Your task to perform on an android device: Open the stopwatch Image 0: 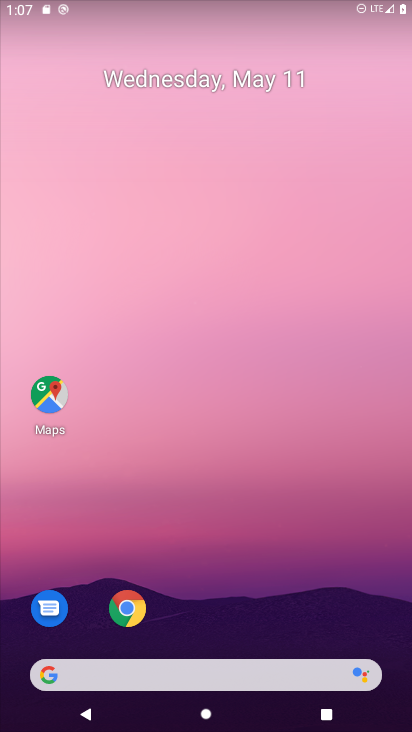
Step 0: drag from (257, 553) to (260, 59)
Your task to perform on an android device: Open the stopwatch Image 1: 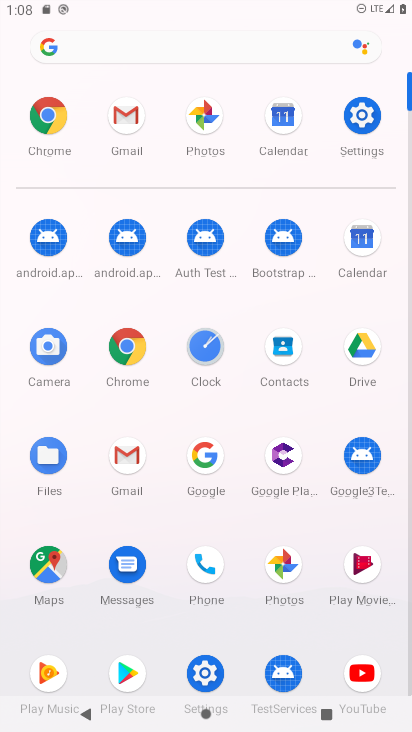
Step 1: click (214, 350)
Your task to perform on an android device: Open the stopwatch Image 2: 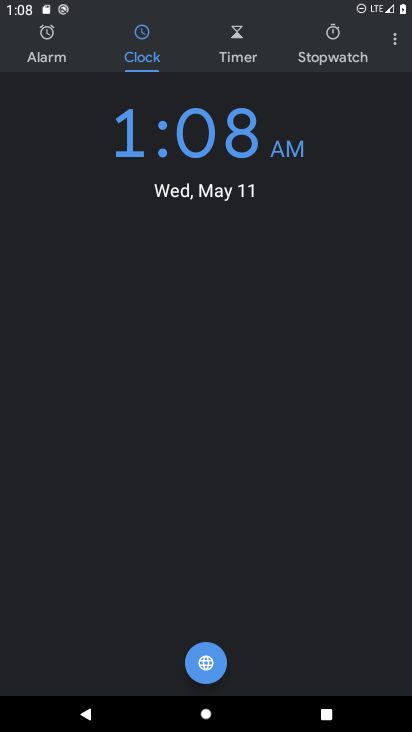
Step 2: click (337, 41)
Your task to perform on an android device: Open the stopwatch Image 3: 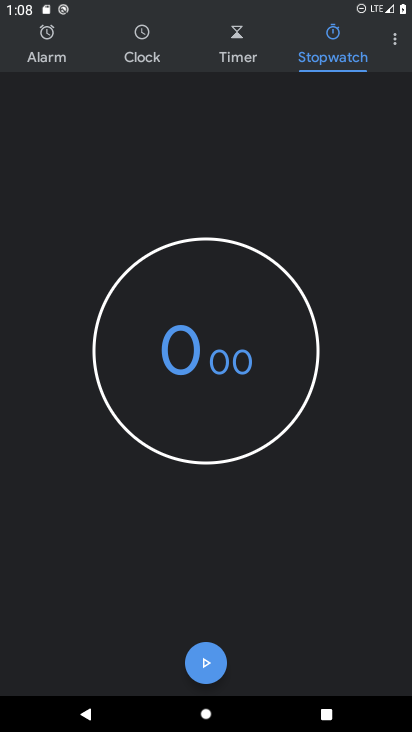
Step 3: task complete